Your task to perform on an android device: open app "ColorNote Notepad Notes" Image 0: 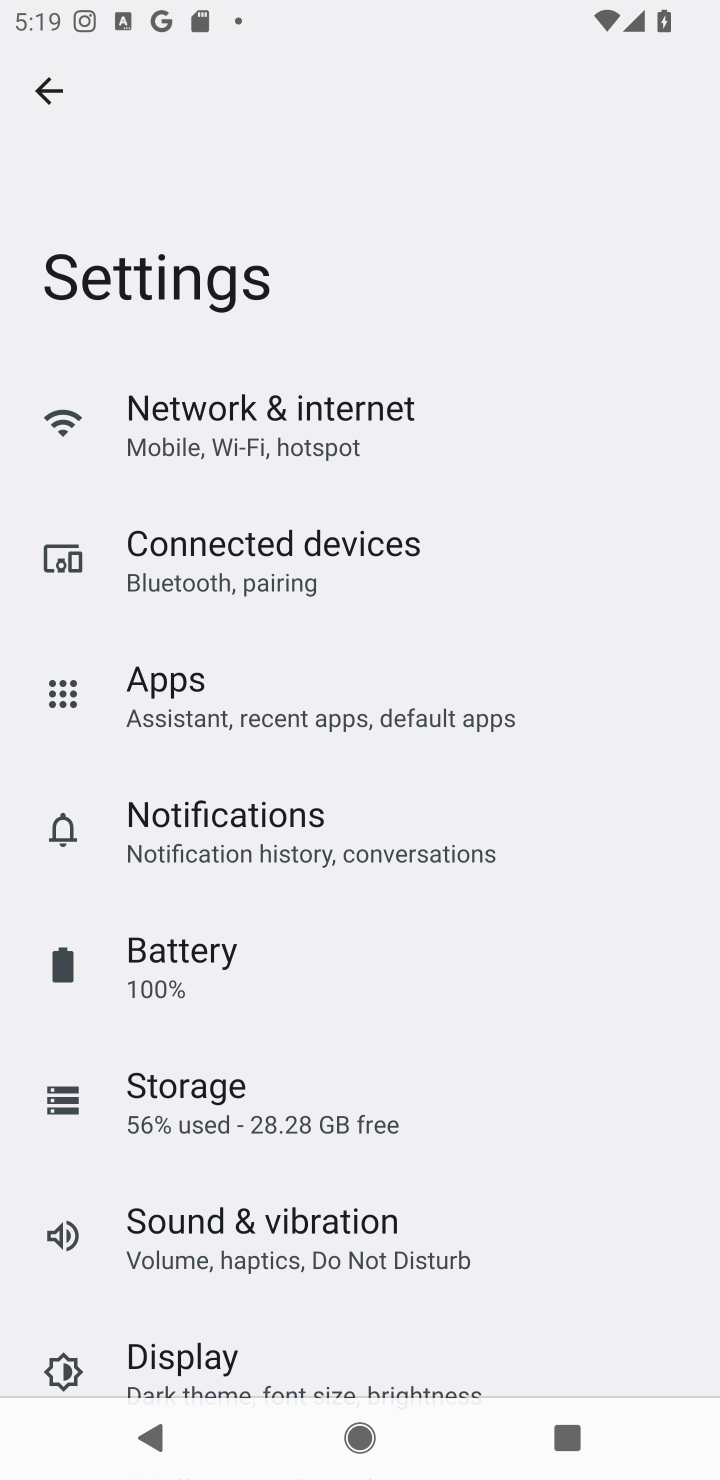
Step 0: press home button
Your task to perform on an android device: open app "ColorNote Notepad Notes" Image 1: 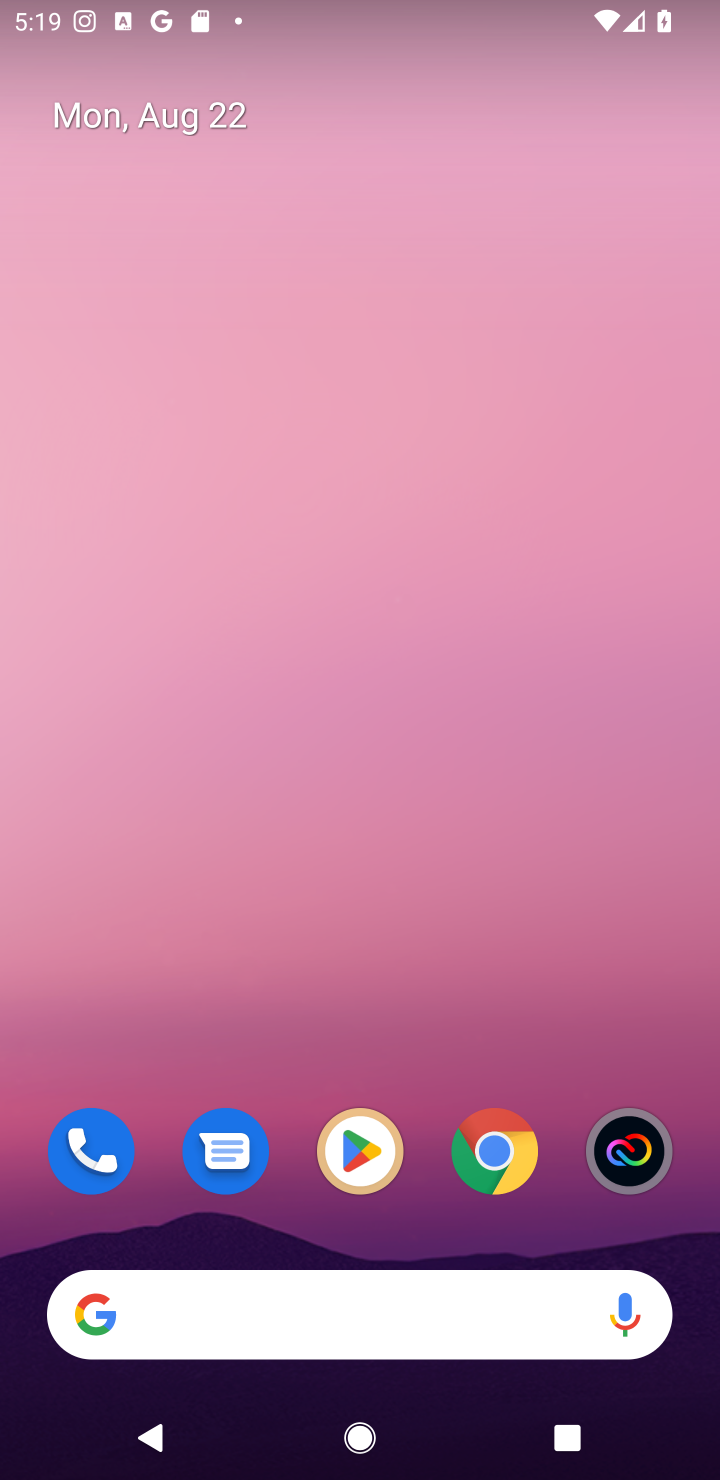
Step 1: click (349, 1156)
Your task to perform on an android device: open app "ColorNote Notepad Notes" Image 2: 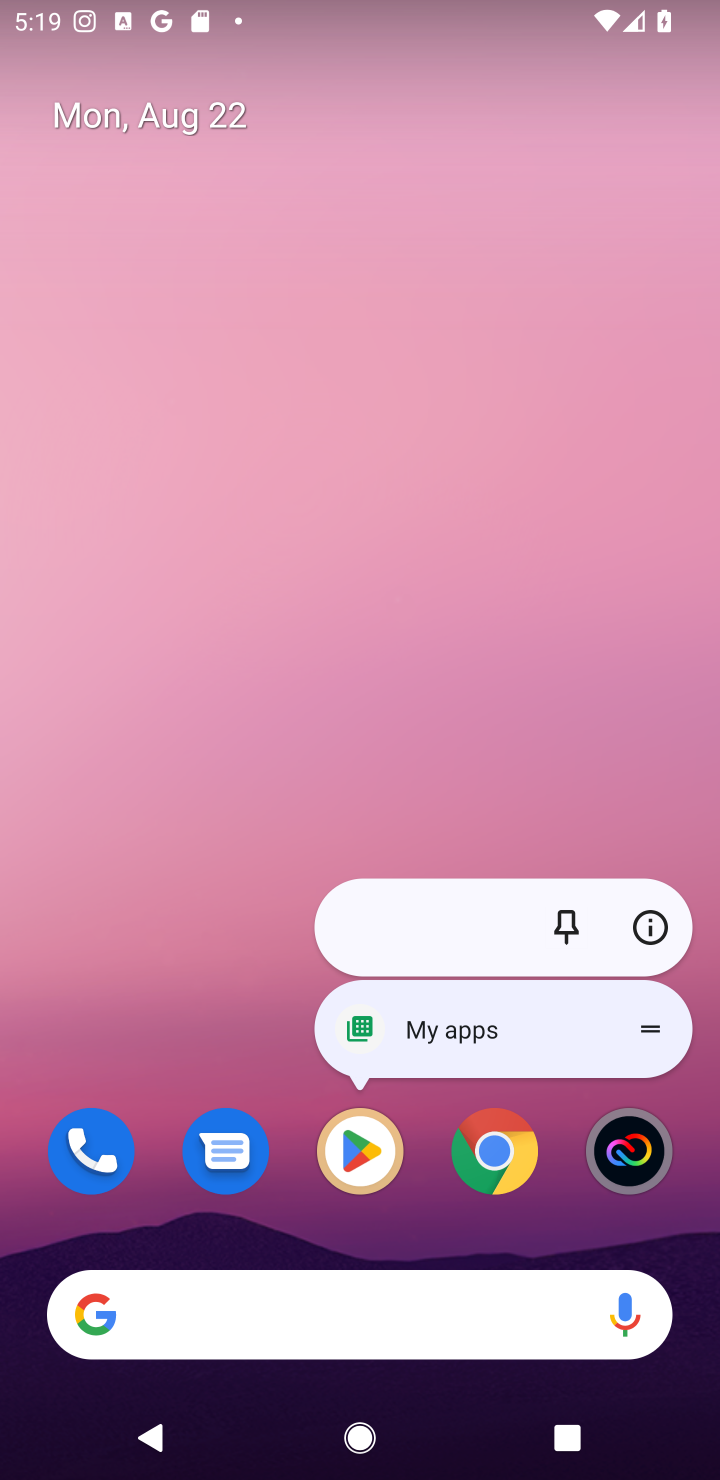
Step 2: click (351, 1154)
Your task to perform on an android device: open app "ColorNote Notepad Notes" Image 3: 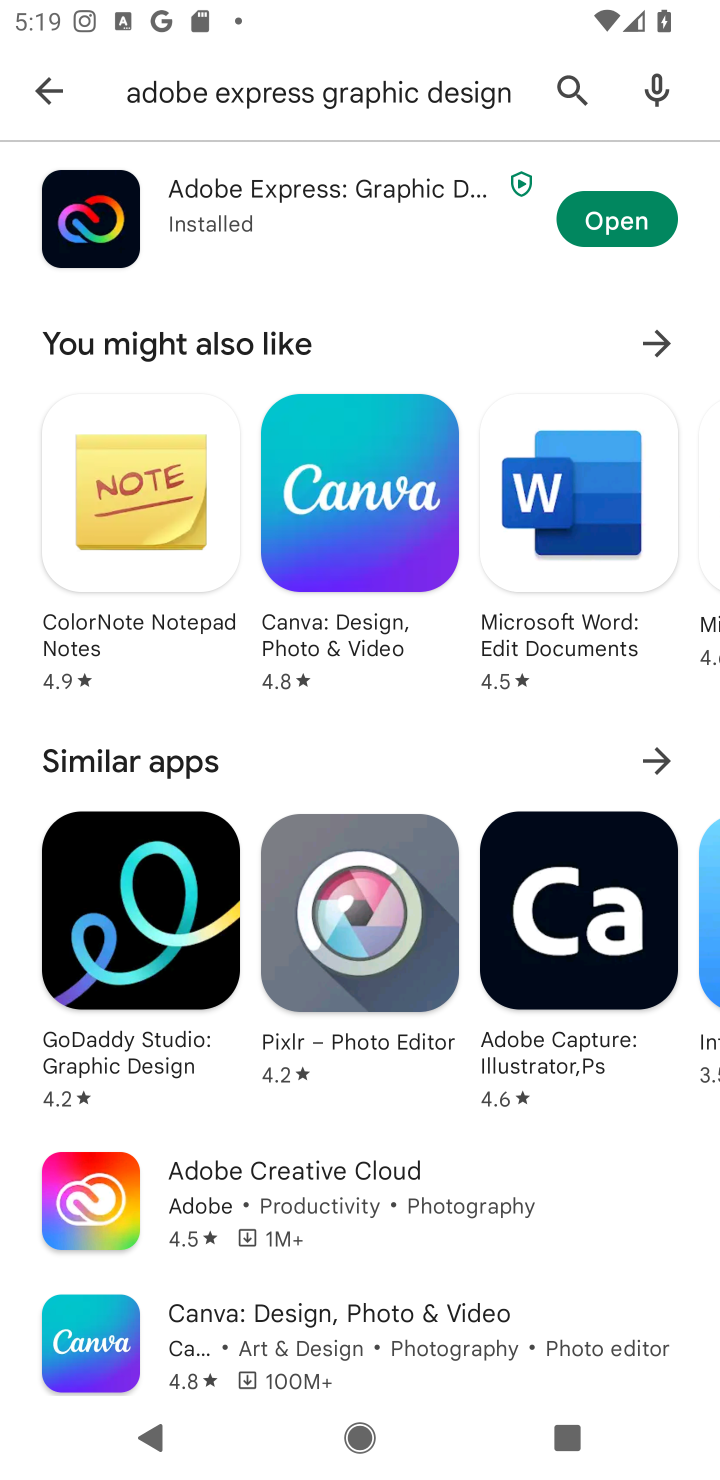
Step 3: click (557, 83)
Your task to perform on an android device: open app "ColorNote Notepad Notes" Image 4: 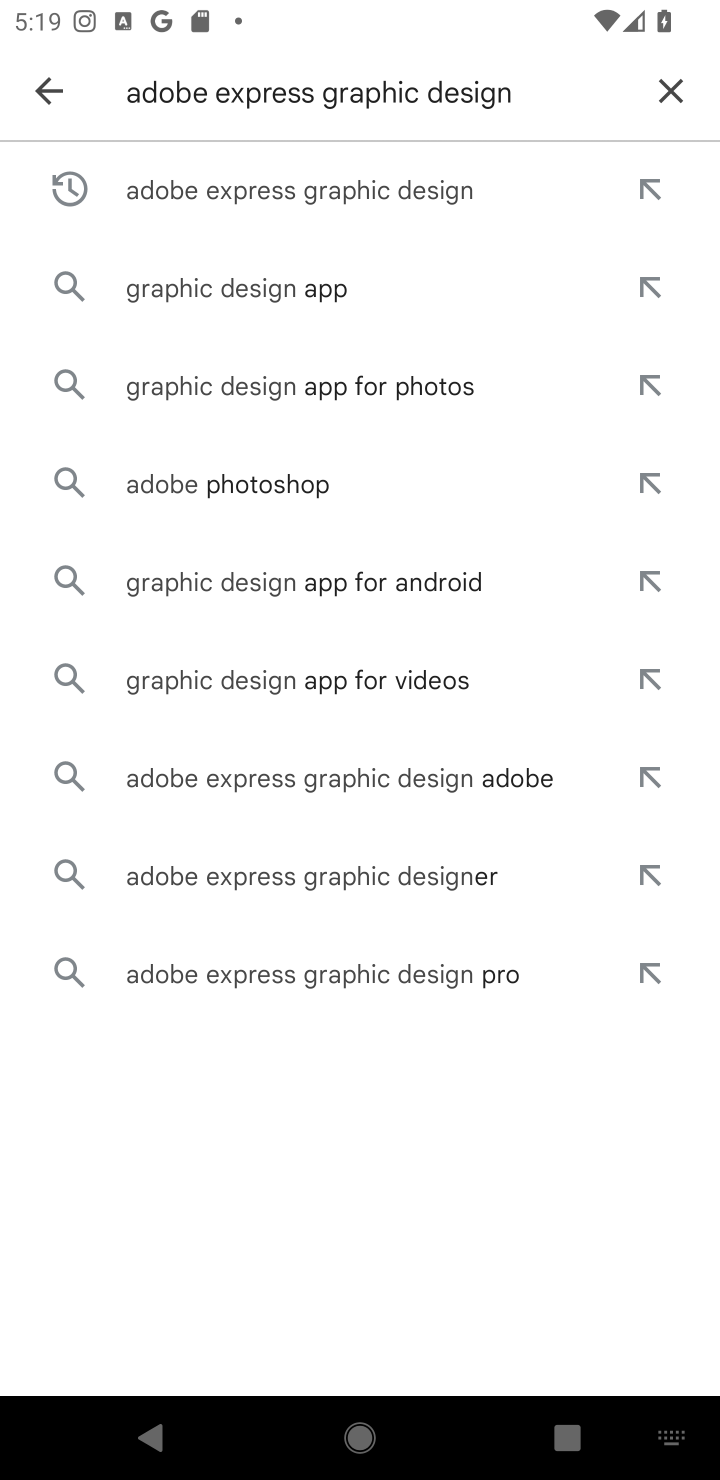
Step 4: click (668, 81)
Your task to perform on an android device: open app "ColorNote Notepad Notes" Image 5: 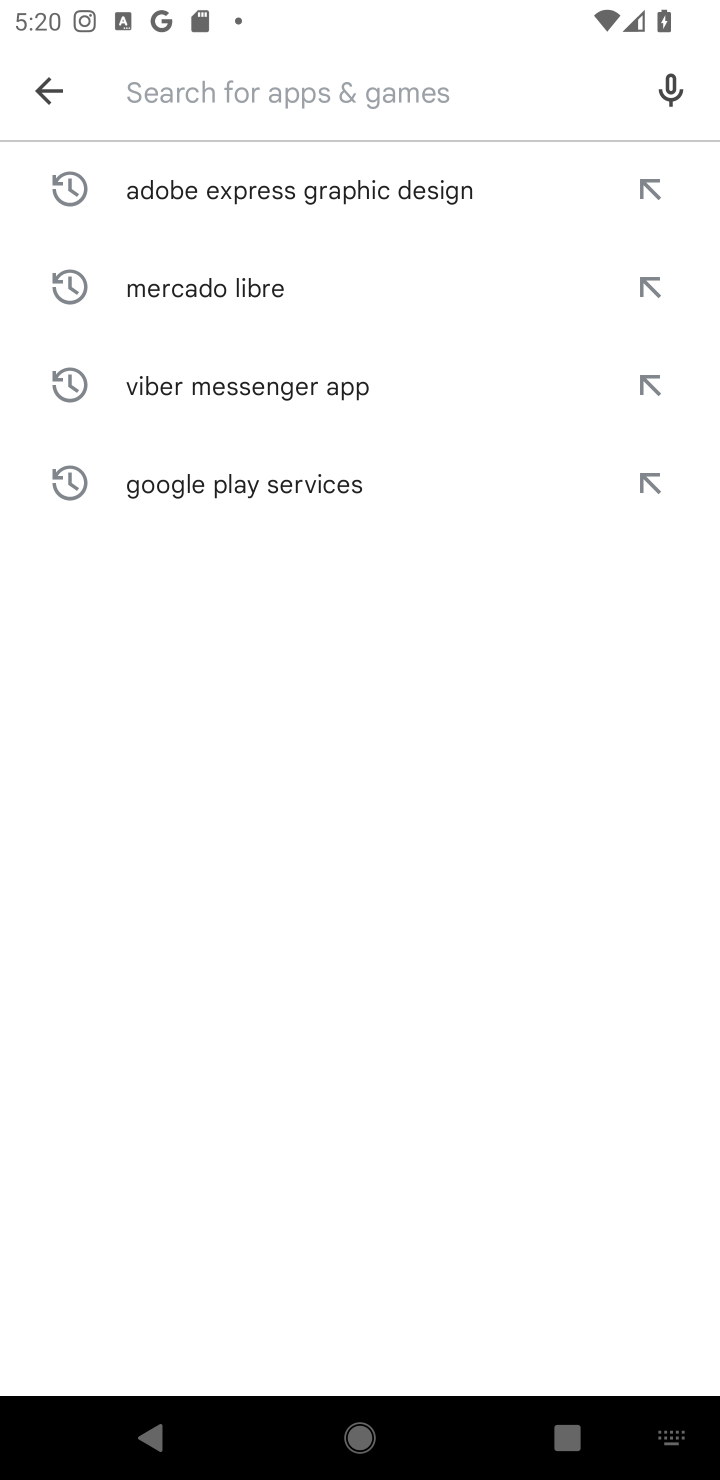
Step 5: type "ColorNote Notepad Notes"
Your task to perform on an android device: open app "ColorNote Notepad Notes" Image 6: 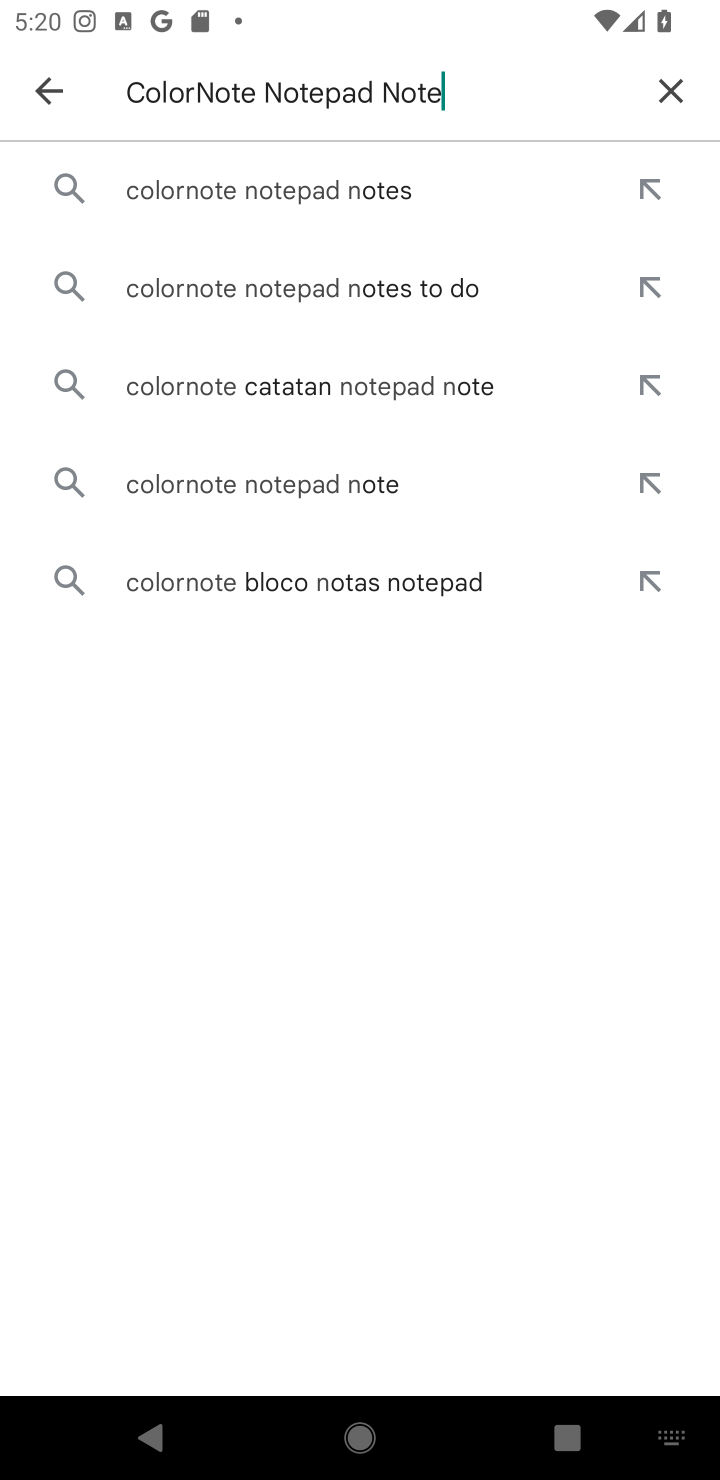
Step 6: press enter
Your task to perform on an android device: open app "ColorNote Notepad Notes" Image 7: 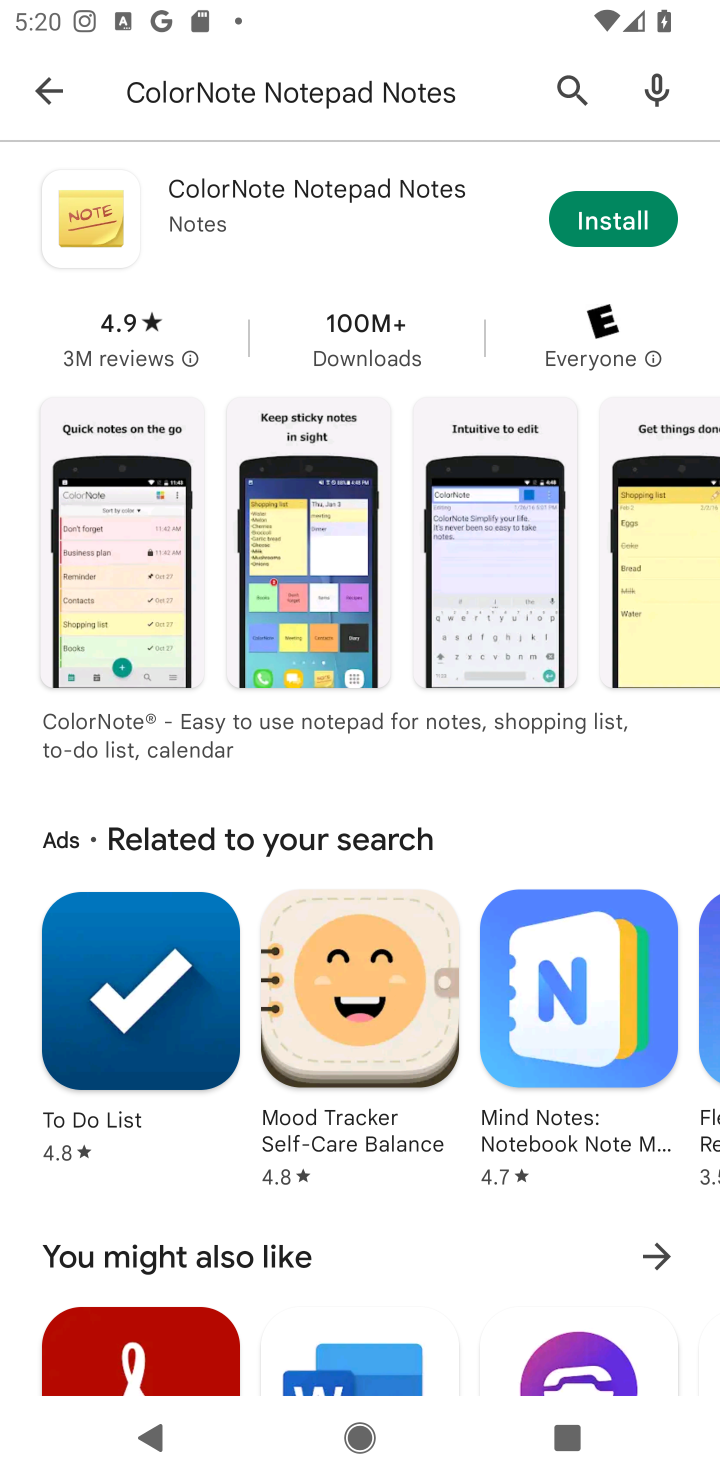
Step 7: task complete